Your task to perform on an android device: add a contact Image 0: 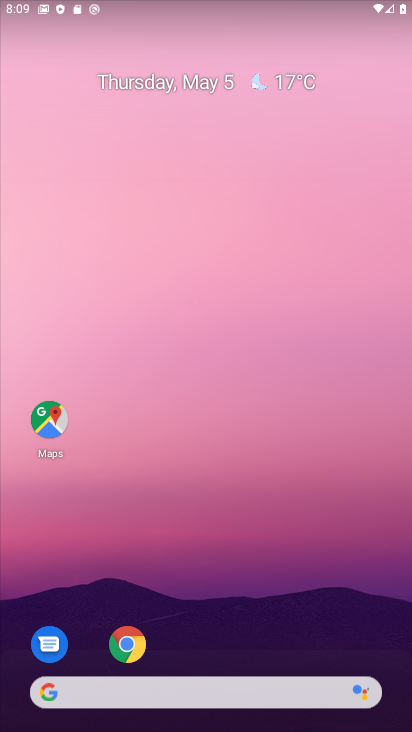
Step 0: drag from (255, 598) to (116, 54)
Your task to perform on an android device: add a contact Image 1: 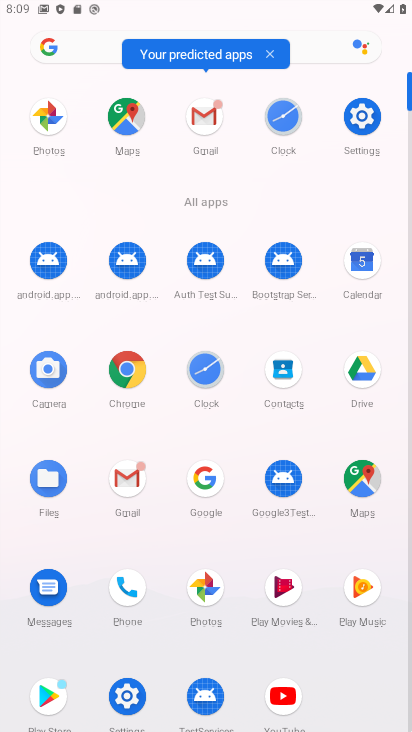
Step 1: click (288, 375)
Your task to perform on an android device: add a contact Image 2: 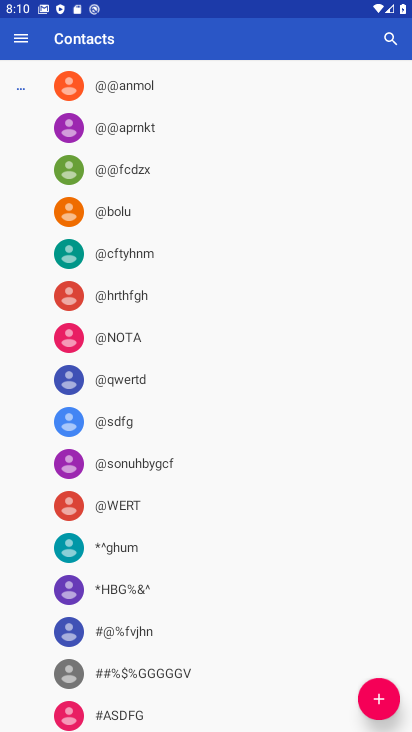
Step 2: click (381, 701)
Your task to perform on an android device: add a contact Image 3: 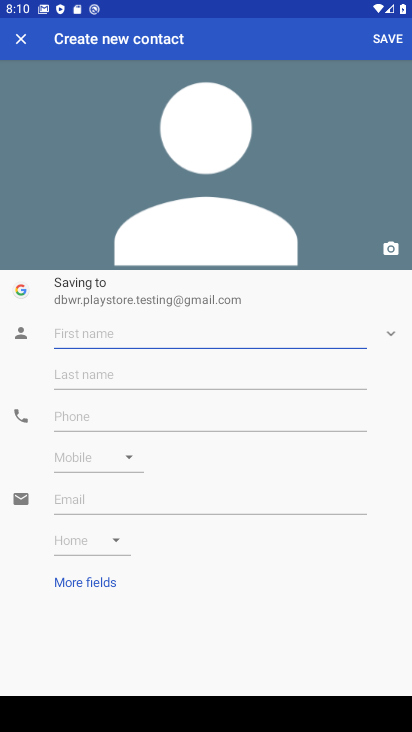
Step 3: click (91, 333)
Your task to perform on an android device: add a contact Image 4: 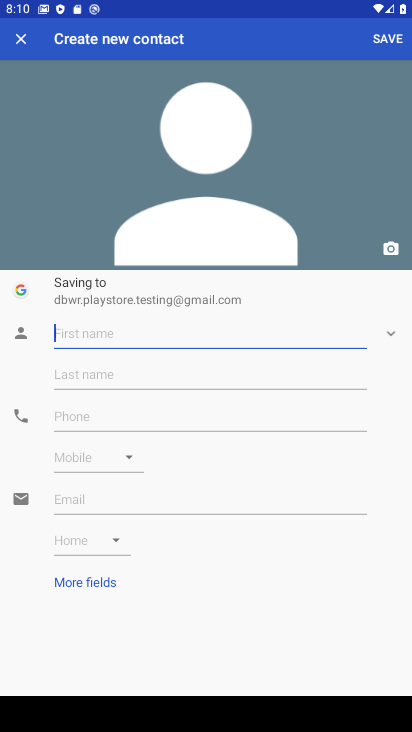
Step 4: type "sdfdsfds"
Your task to perform on an android device: add a contact Image 5: 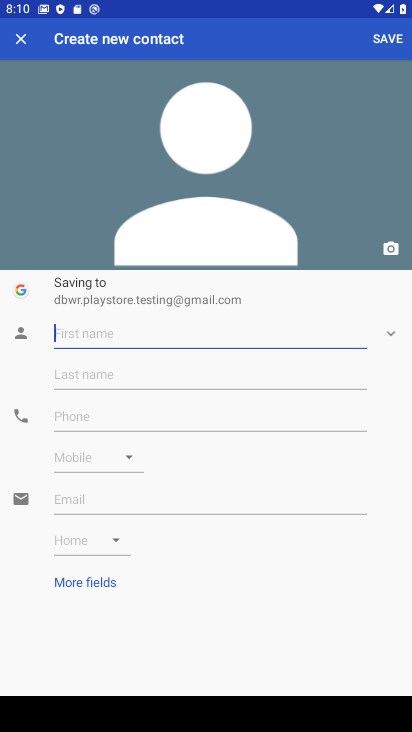
Step 5: click (162, 413)
Your task to perform on an android device: add a contact Image 6: 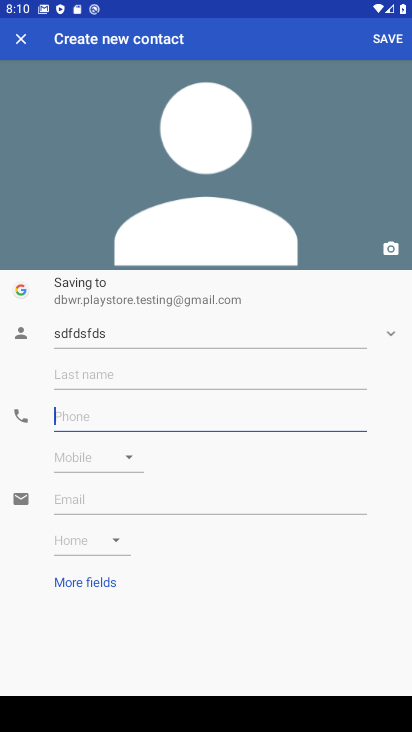
Step 6: type "535343"
Your task to perform on an android device: add a contact Image 7: 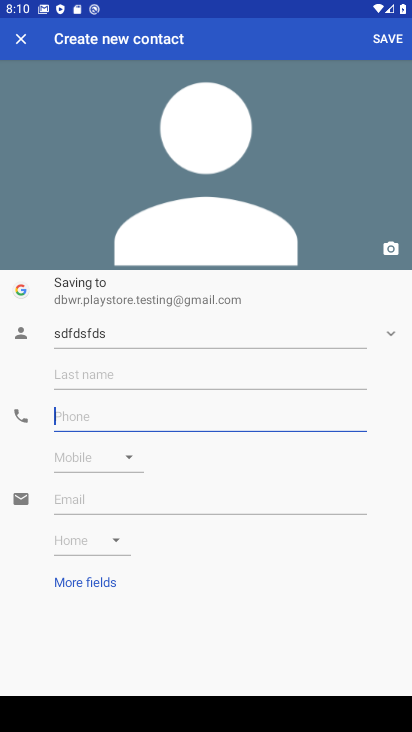
Step 7: click (262, 638)
Your task to perform on an android device: add a contact Image 8: 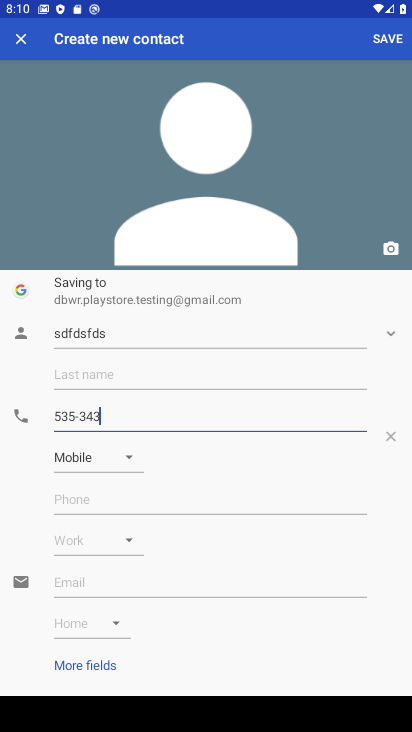
Step 8: task complete